Your task to perform on an android device: turn off priority inbox in the gmail app Image 0: 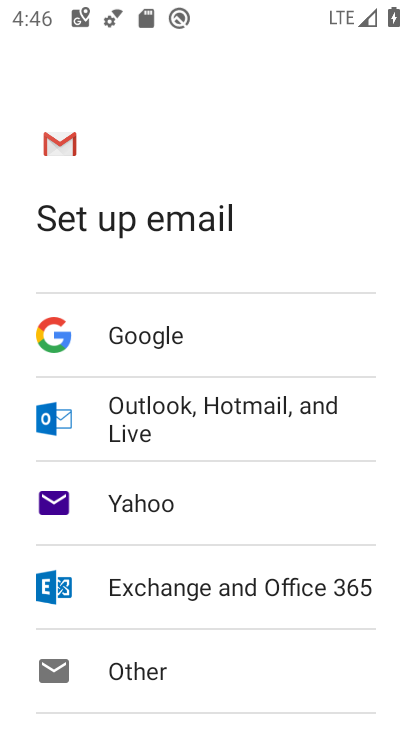
Step 0: press home button
Your task to perform on an android device: turn off priority inbox in the gmail app Image 1: 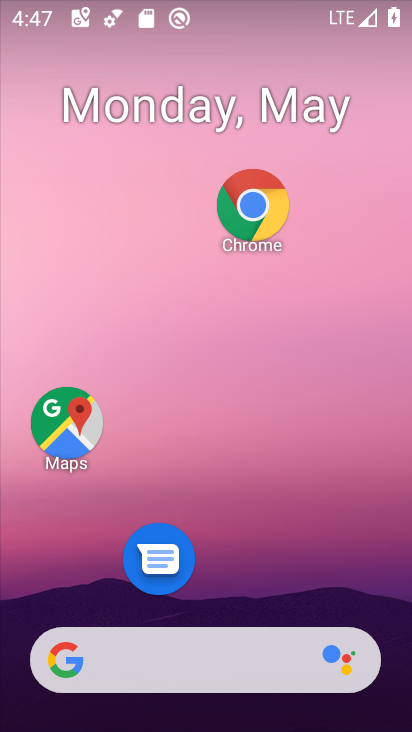
Step 1: drag from (214, 624) to (260, 171)
Your task to perform on an android device: turn off priority inbox in the gmail app Image 2: 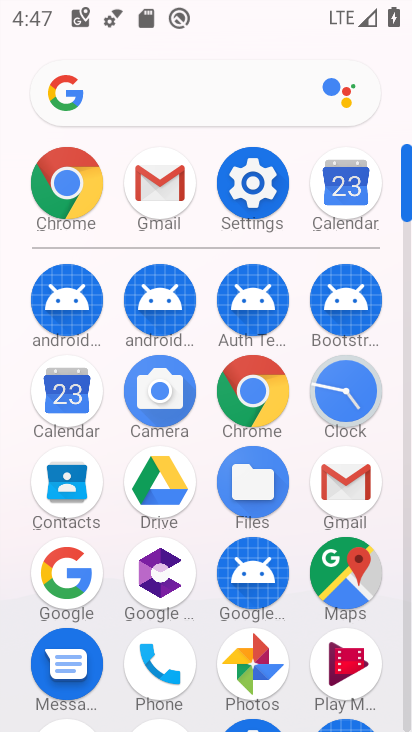
Step 2: click (172, 193)
Your task to perform on an android device: turn off priority inbox in the gmail app Image 3: 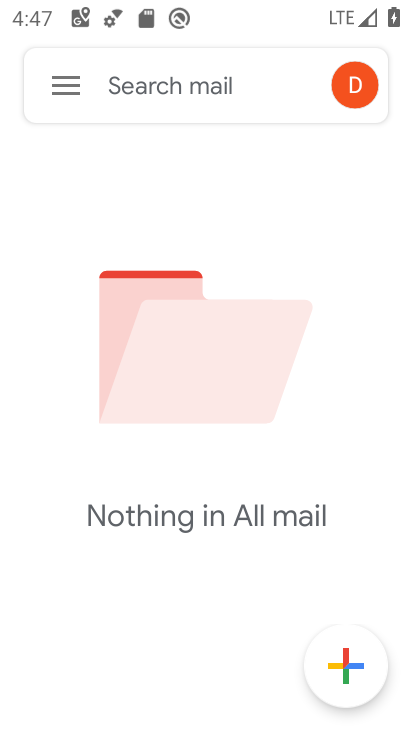
Step 3: click (67, 90)
Your task to perform on an android device: turn off priority inbox in the gmail app Image 4: 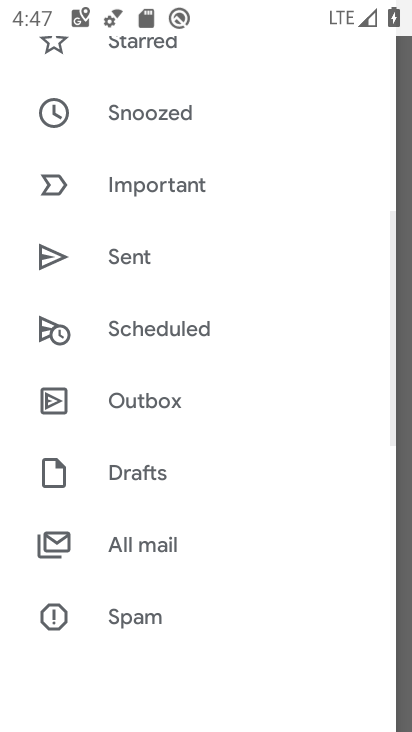
Step 4: drag from (142, 611) to (177, 250)
Your task to perform on an android device: turn off priority inbox in the gmail app Image 5: 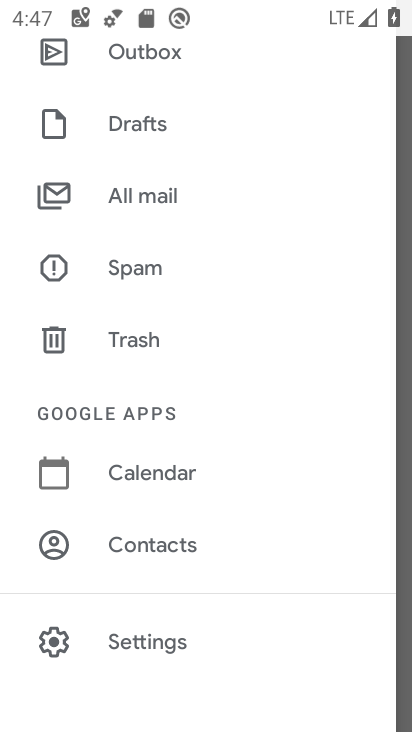
Step 5: click (154, 648)
Your task to perform on an android device: turn off priority inbox in the gmail app Image 6: 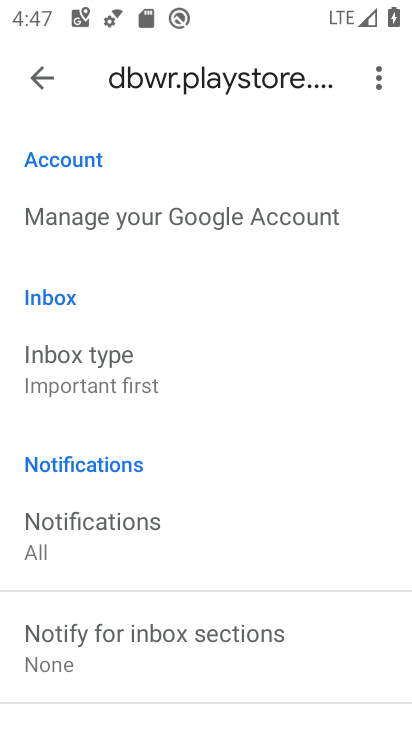
Step 6: click (98, 369)
Your task to perform on an android device: turn off priority inbox in the gmail app Image 7: 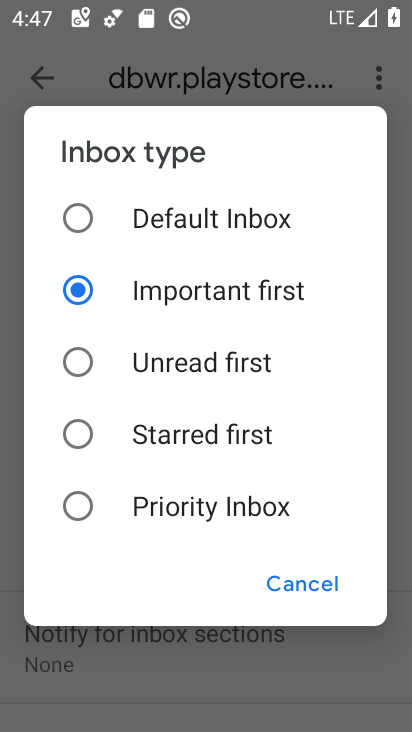
Step 7: task complete